Your task to perform on an android device: turn on data saver in the chrome app Image 0: 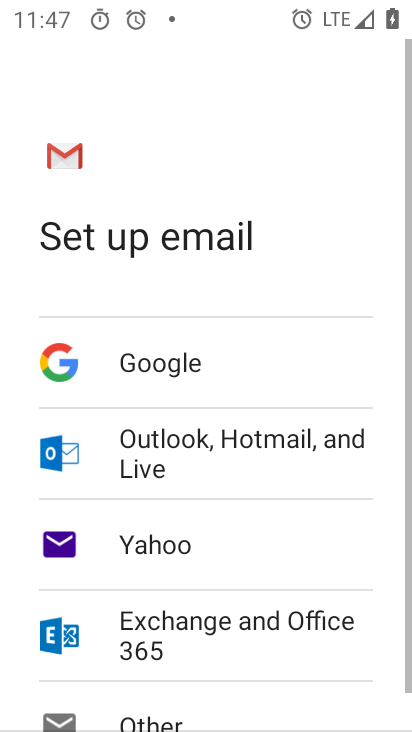
Step 0: press home button
Your task to perform on an android device: turn on data saver in the chrome app Image 1: 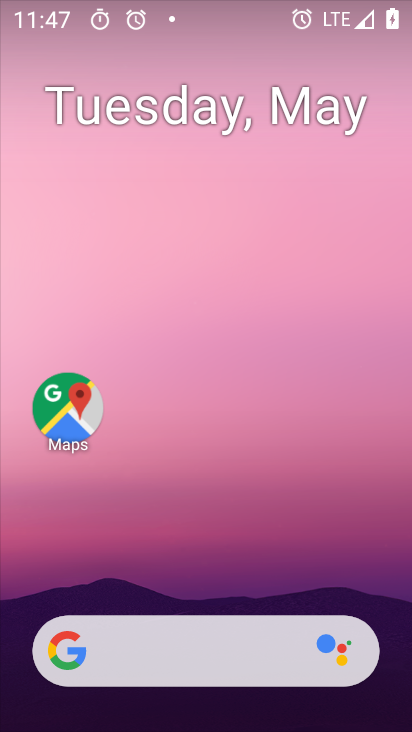
Step 1: drag from (215, 620) to (185, 208)
Your task to perform on an android device: turn on data saver in the chrome app Image 2: 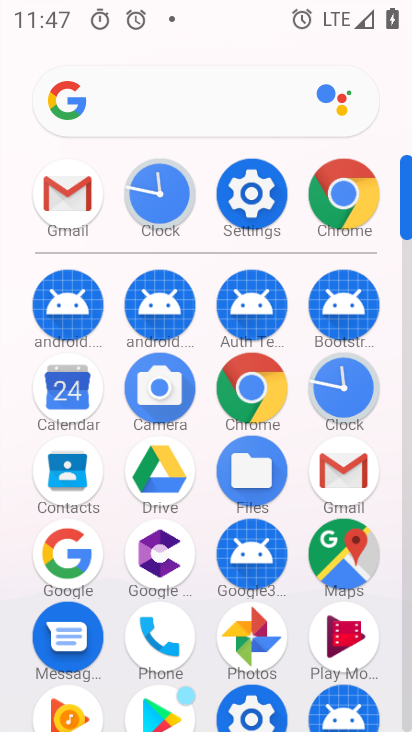
Step 2: click (315, 203)
Your task to perform on an android device: turn on data saver in the chrome app Image 3: 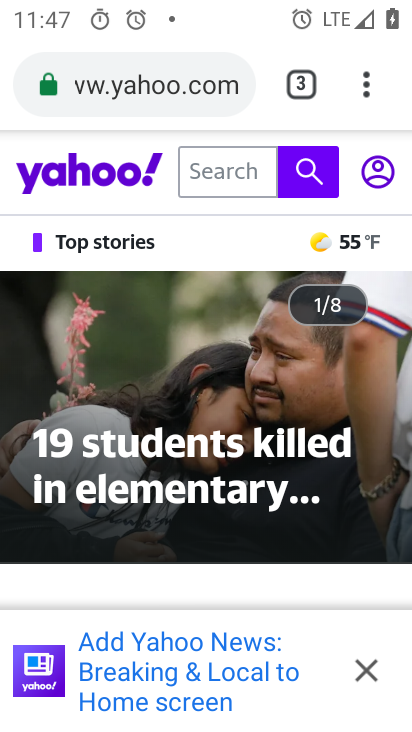
Step 3: drag from (371, 81) to (109, 588)
Your task to perform on an android device: turn on data saver in the chrome app Image 4: 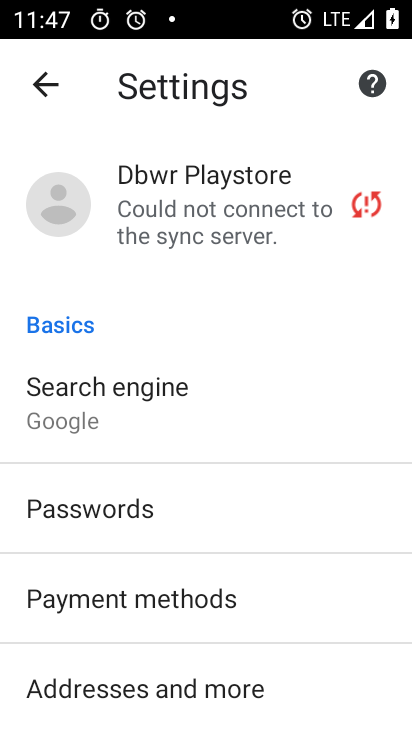
Step 4: drag from (131, 636) to (100, 229)
Your task to perform on an android device: turn on data saver in the chrome app Image 5: 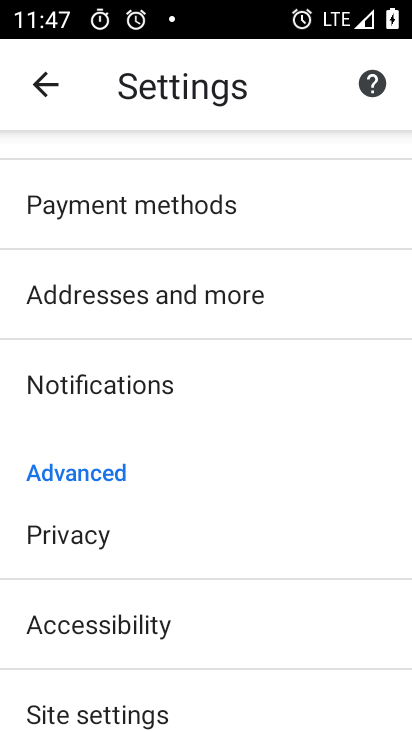
Step 5: drag from (132, 660) to (153, 350)
Your task to perform on an android device: turn on data saver in the chrome app Image 6: 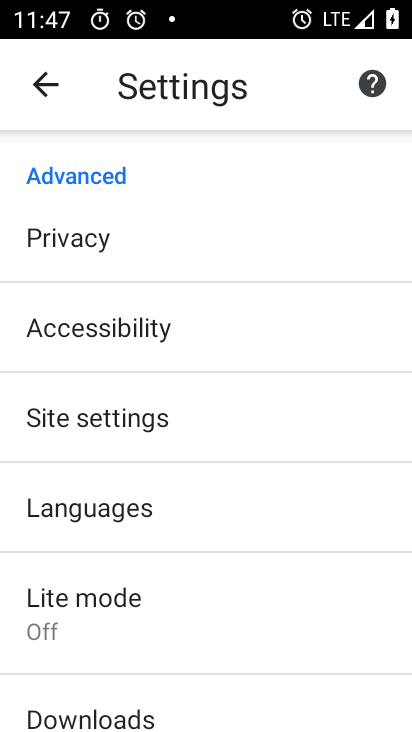
Step 6: click (91, 616)
Your task to perform on an android device: turn on data saver in the chrome app Image 7: 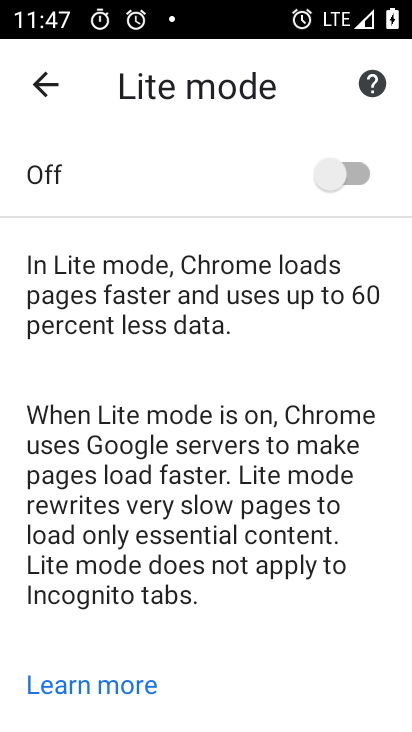
Step 7: click (350, 174)
Your task to perform on an android device: turn on data saver in the chrome app Image 8: 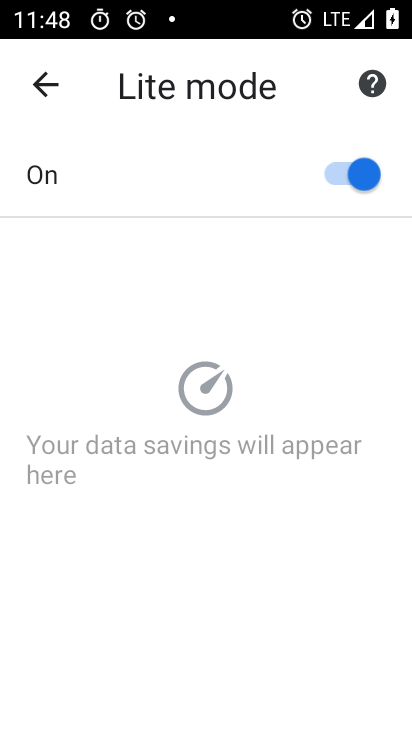
Step 8: task complete